Your task to perform on an android device: open app "VLC for Android" (install if not already installed) and enter user name: "Yves@outlook.com" and password: "internally" Image 0: 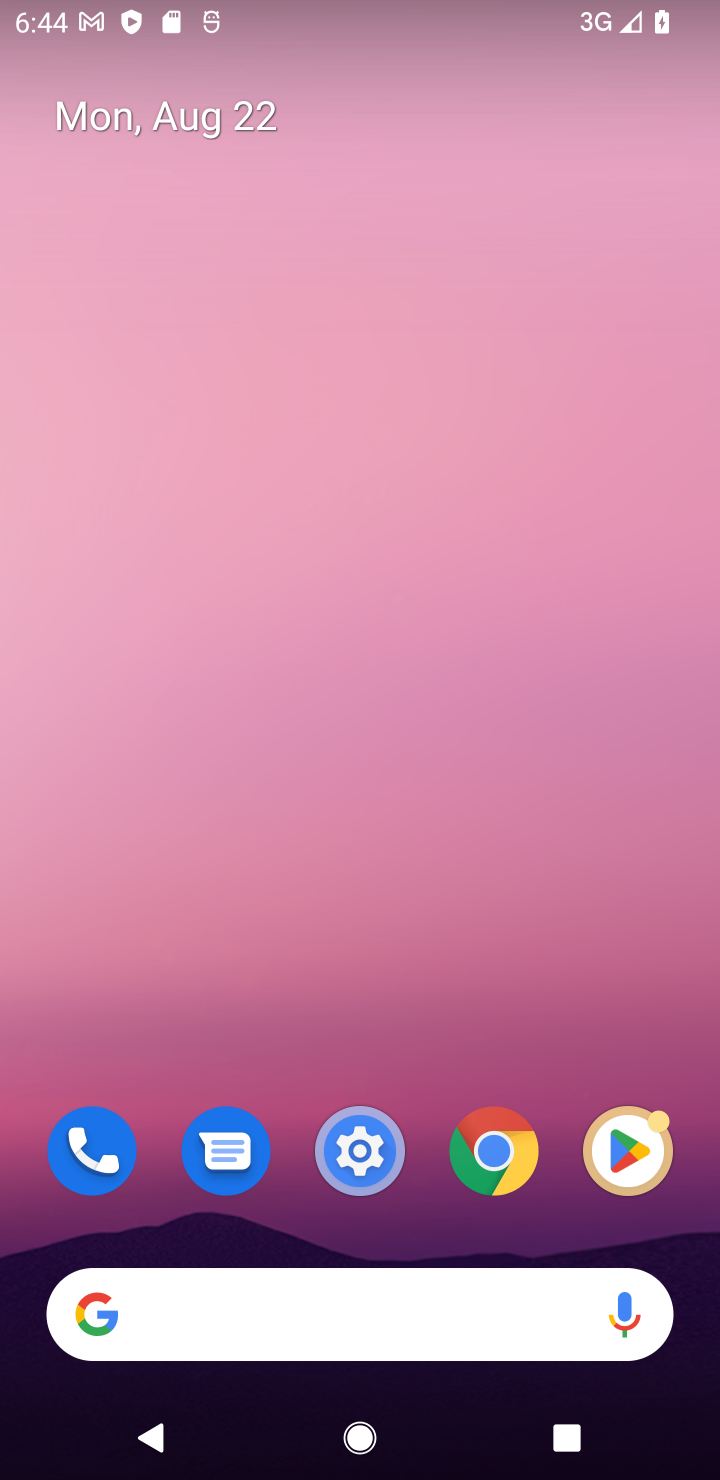
Step 0: click (637, 1160)
Your task to perform on an android device: open app "VLC for Android" (install if not already installed) and enter user name: "Yves@outlook.com" and password: "internally" Image 1: 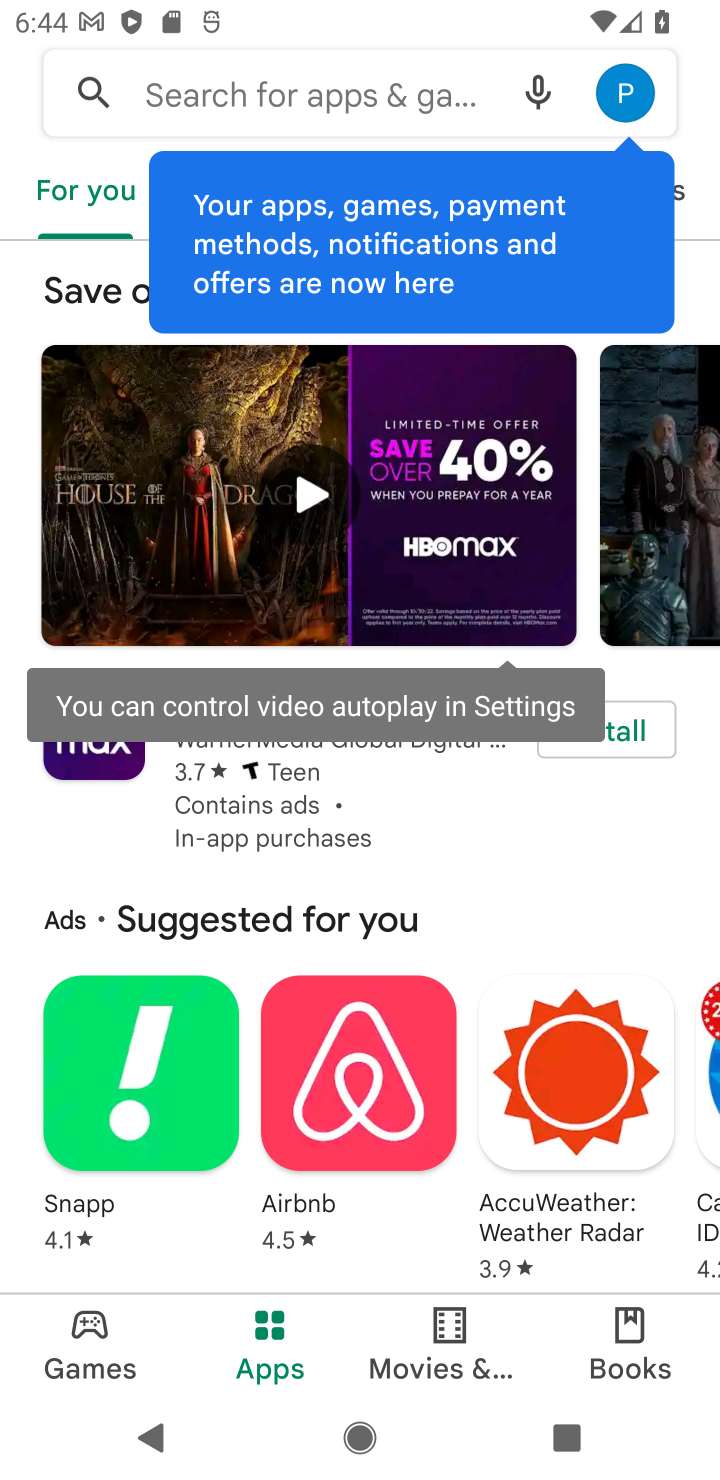
Step 1: click (342, 65)
Your task to perform on an android device: open app "VLC for Android" (install if not already installed) and enter user name: "Yves@outlook.com" and password: "internally" Image 2: 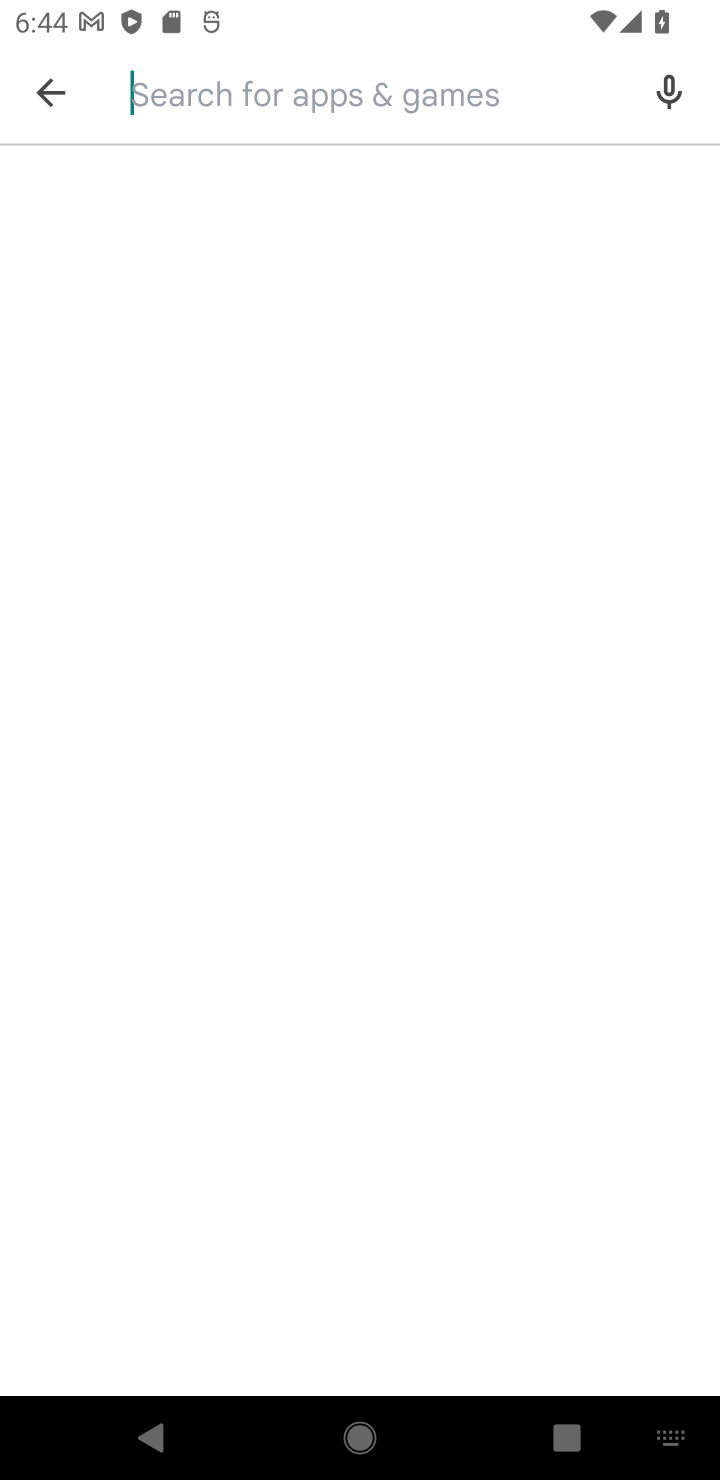
Step 2: type "VLC for Android"
Your task to perform on an android device: open app "VLC for Android" (install if not already installed) and enter user name: "Yves@outlook.com" and password: "internally" Image 3: 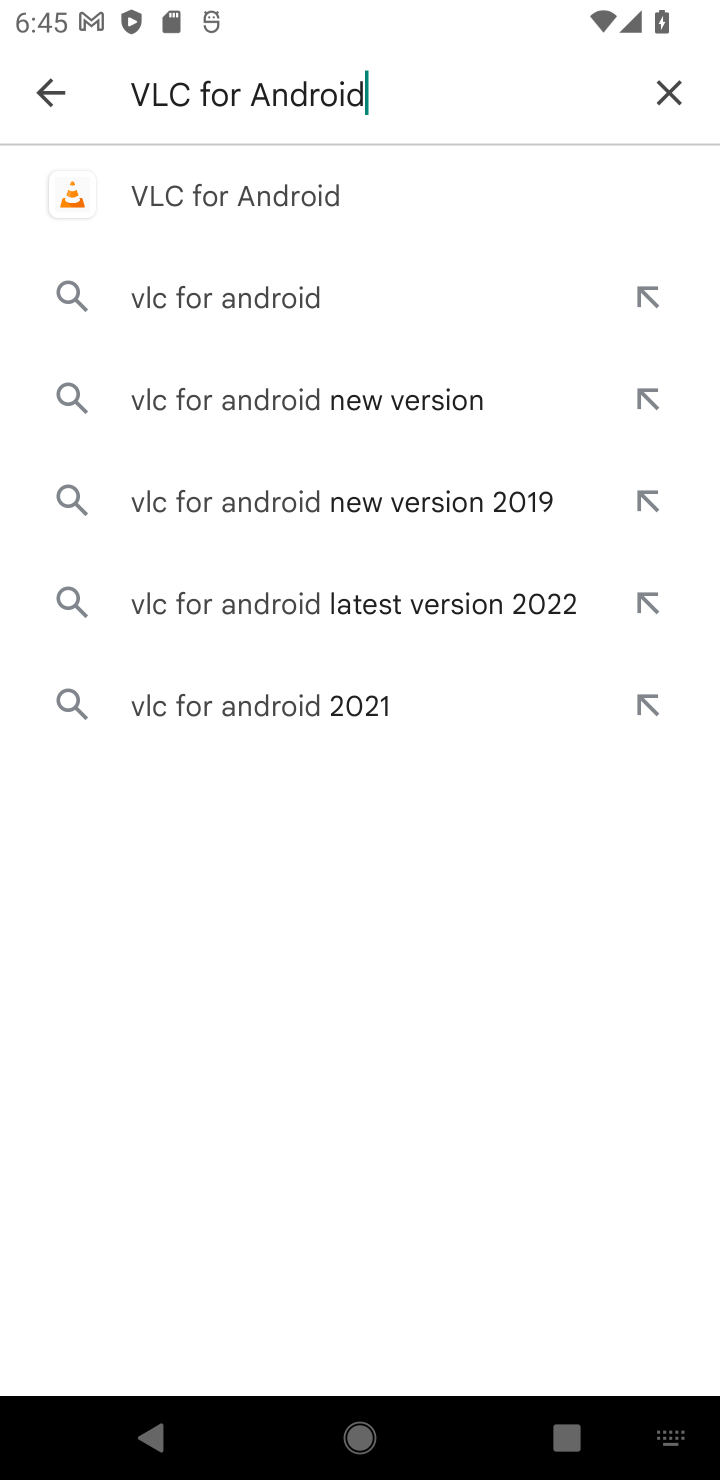
Step 3: click (168, 205)
Your task to perform on an android device: open app "VLC for Android" (install if not already installed) and enter user name: "Yves@outlook.com" and password: "internally" Image 4: 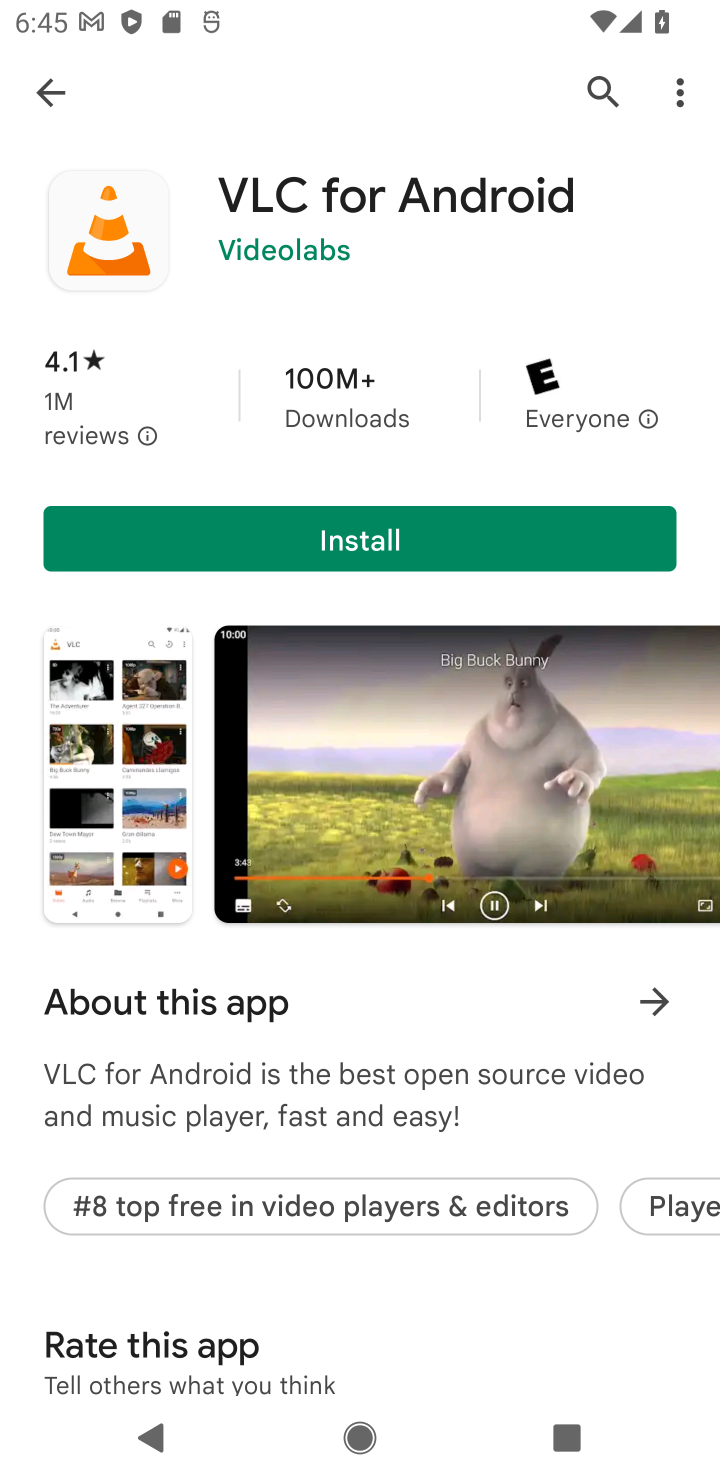
Step 4: click (404, 552)
Your task to perform on an android device: open app "VLC for Android" (install if not already installed) and enter user name: "Yves@outlook.com" and password: "internally" Image 5: 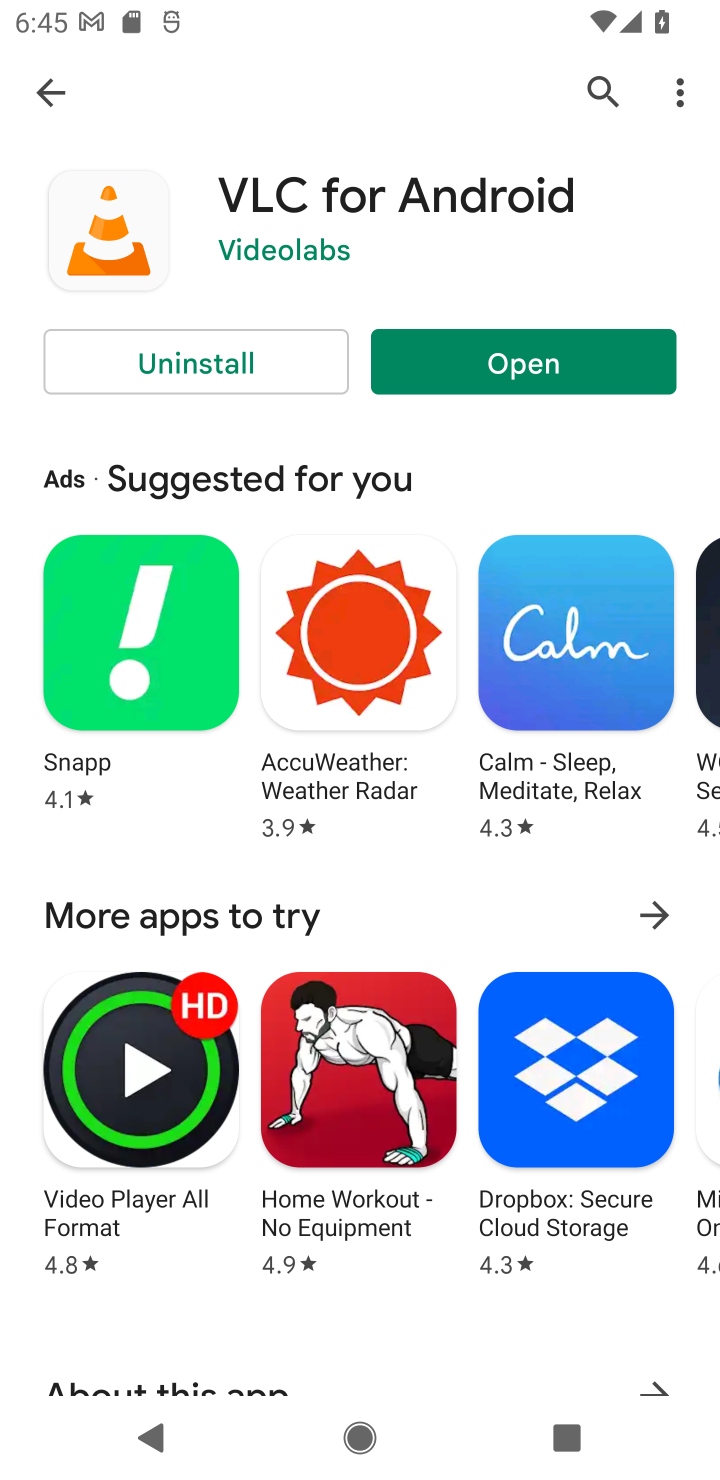
Step 5: click (553, 370)
Your task to perform on an android device: open app "VLC for Android" (install if not already installed) and enter user name: "Yves@outlook.com" and password: "internally" Image 6: 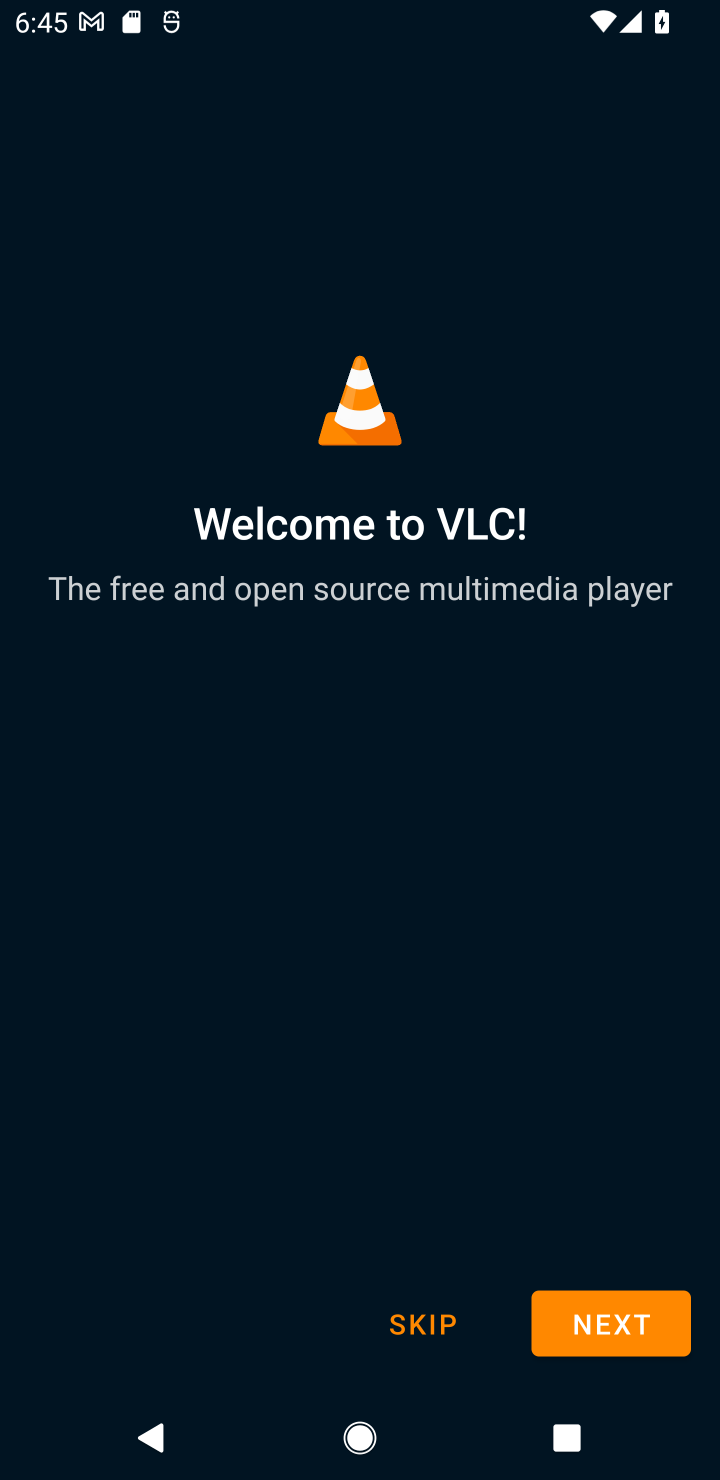
Step 6: click (669, 1346)
Your task to perform on an android device: open app "VLC for Android" (install if not already installed) and enter user name: "Yves@outlook.com" and password: "internally" Image 7: 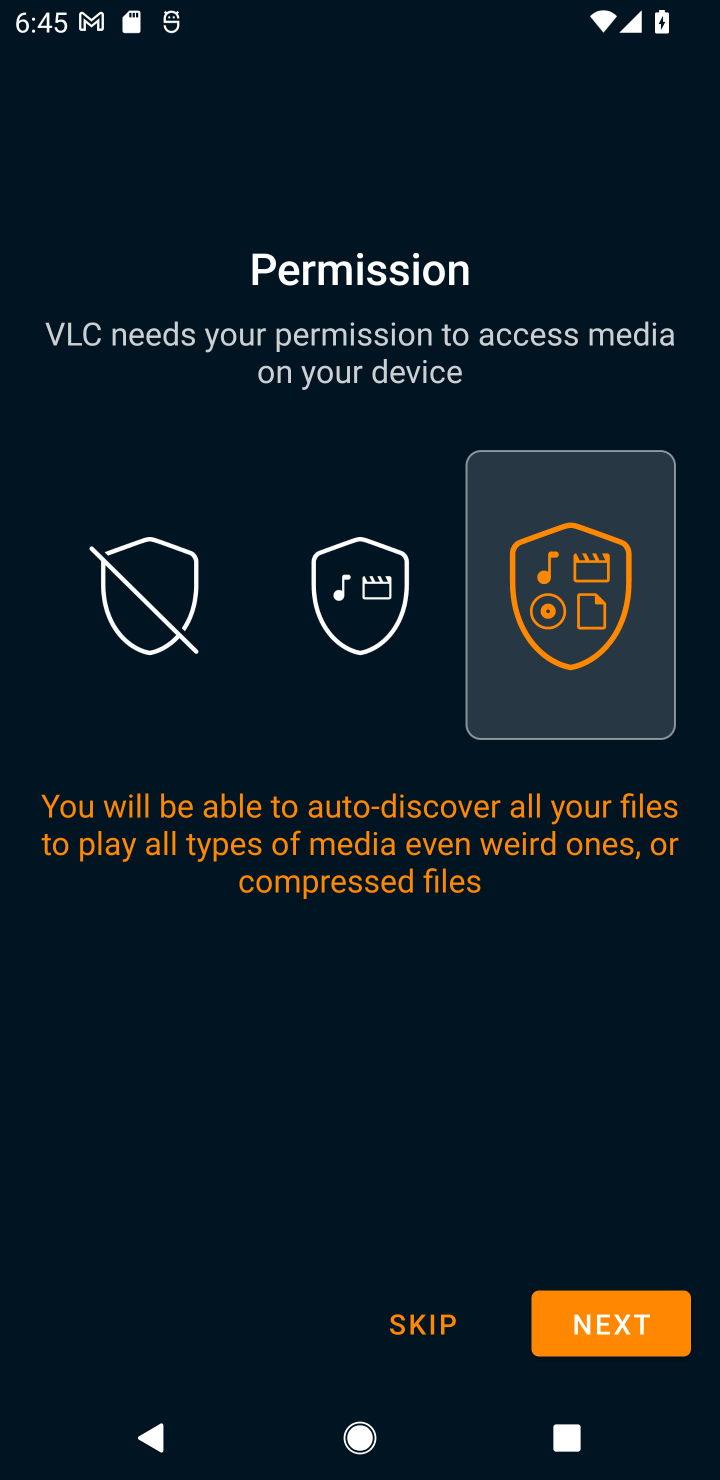
Step 7: click (669, 1346)
Your task to perform on an android device: open app "VLC for Android" (install if not already installed) and enter user name: "Yves@outlook.com" and password: "internally" Image 8: 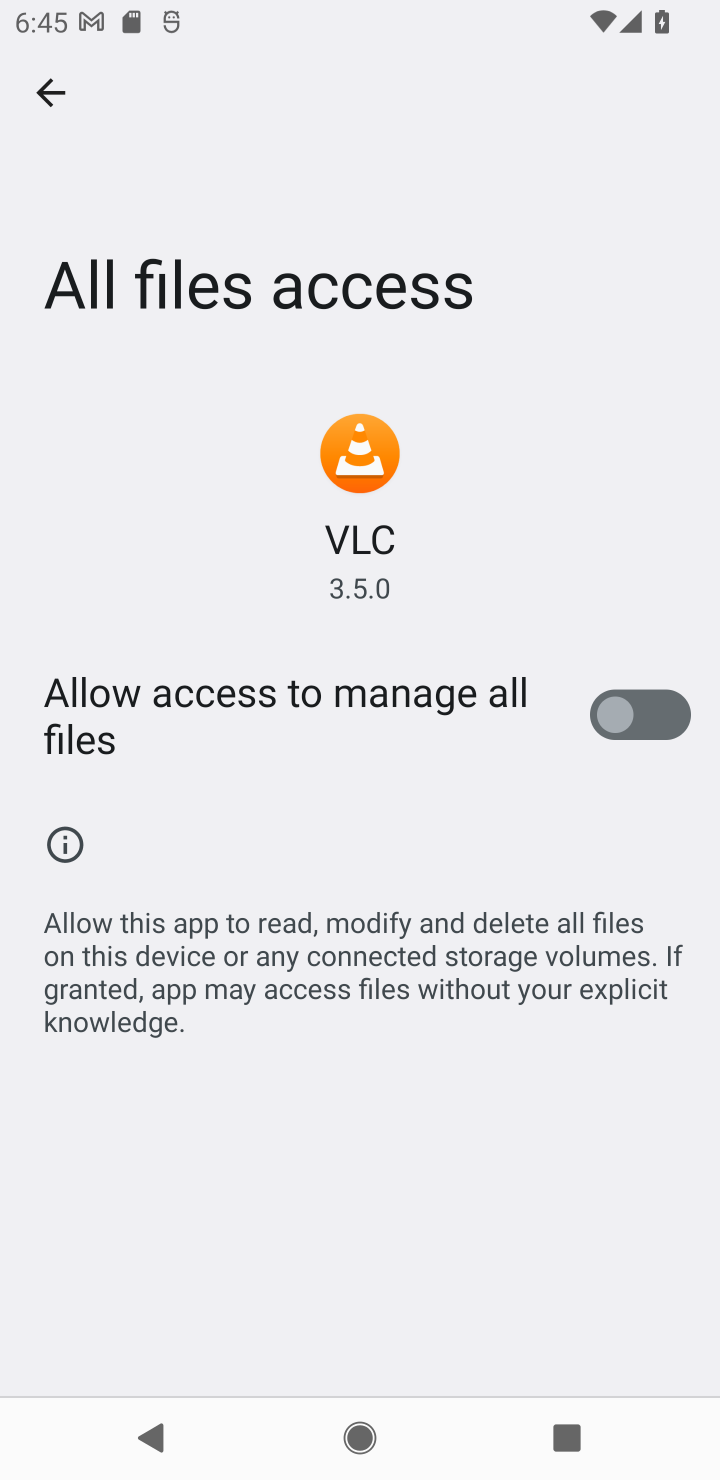
Step 8: task complete